Your task to perform on an android device: turn on location history Image 0: 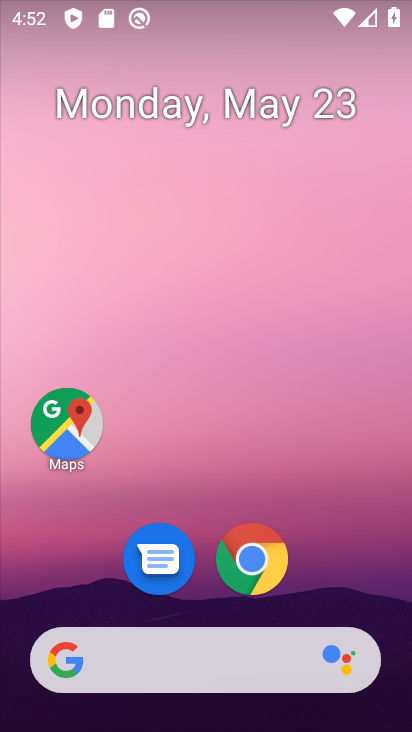
Step 0: drag from (250, 430) to (292, 66)
Your task to perform on an android device: turn on location history Image 1: 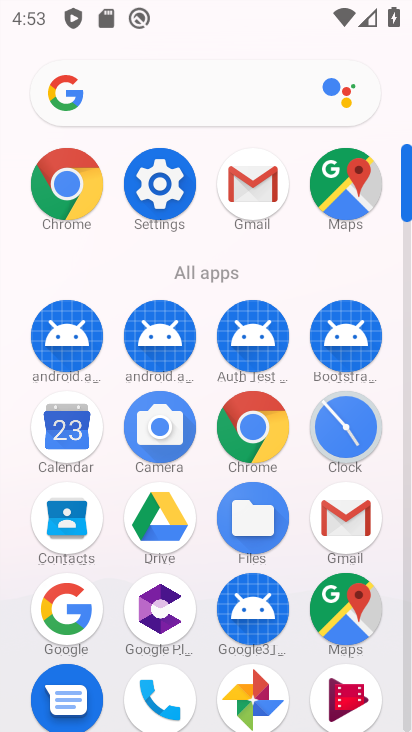
Step 1: drag from (290, 622) to (307, 264)
Your task to perform on an android device: turn on location history Image 2: 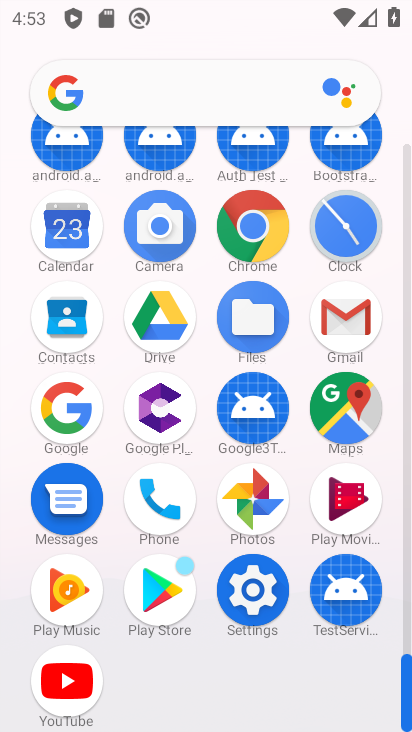
Step 2: click (268, 582)
Your task to perform on an android device: turn on location history Image 3: 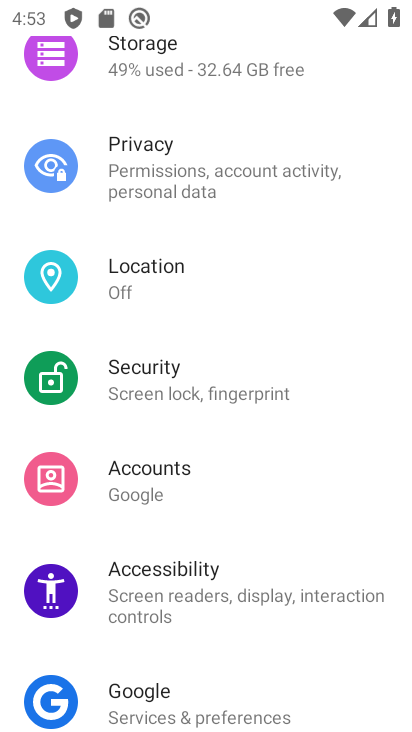
Step 3: click (221, 270)
Your task to perform on an android device: turn on location history Image 4: 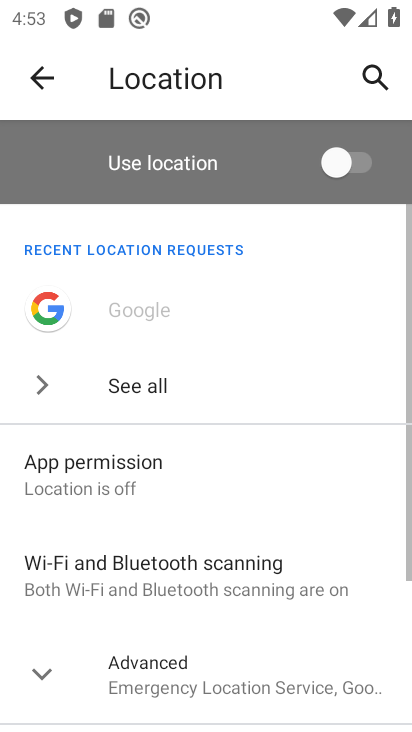
Step 4: drag from (283, 625) to (303, 156)
Your task to perform on an android device: turn on location history Image 5: 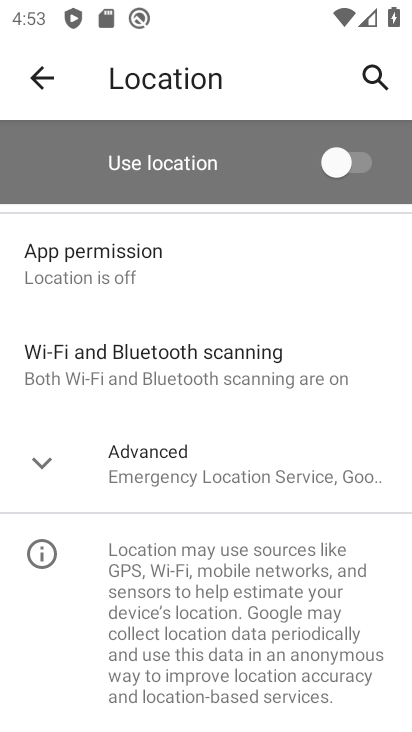
Step 5: click (260, 472)
Your task to perform on an android device: turn on location history Image 6: 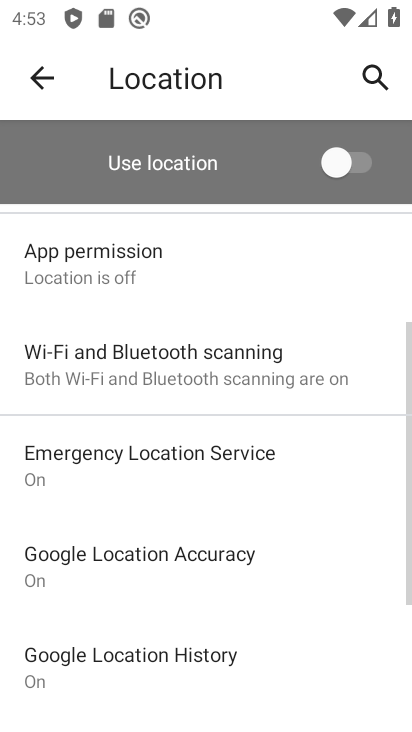
Step 6: drag from (219, 672) to (225, 274)
Your task to perform on an android device: turn on location history Image 7: 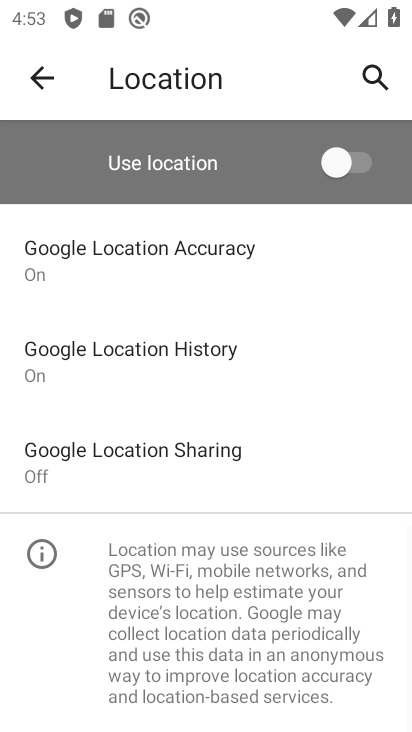
Step 7: click (196, 348)
Your task to perform on an android device: turn on location history Image 8: 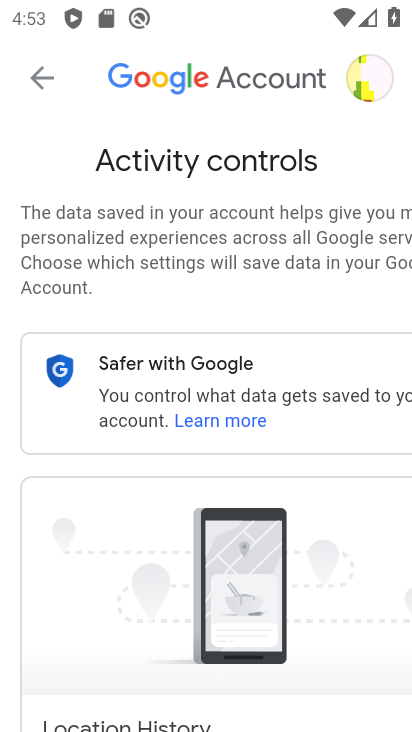
Step 8: drag from (352, 655) to (322, 138)
Your task to perform on an android device: turn on location history Image 9: 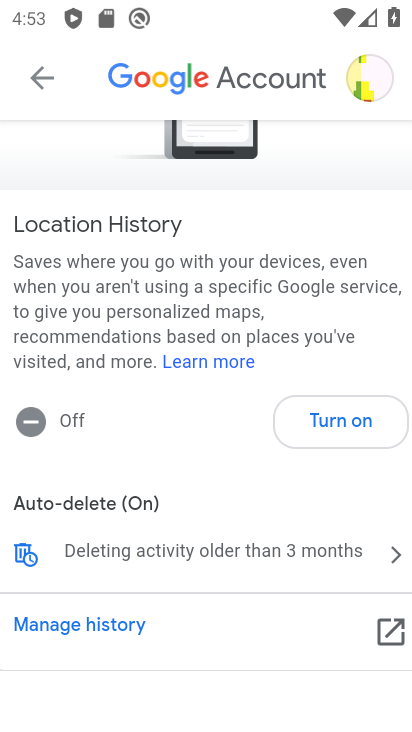
Step 9: click (347, 418)
Your task to perform on an android device: turn on location history Image 10: 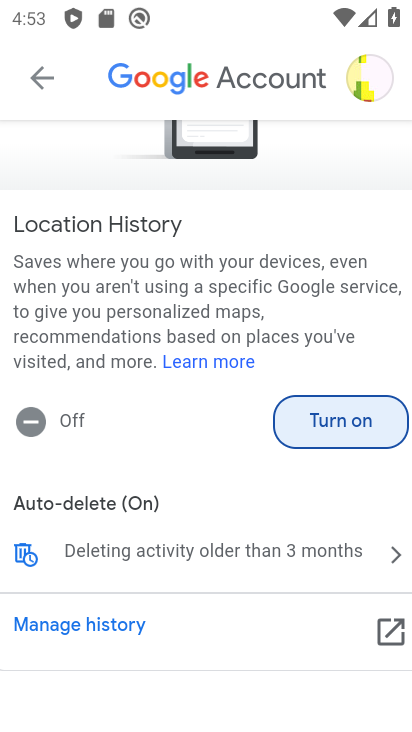
Step 10: click (346, 426)
Your task to perform on an android device: turn on location history Image 11: 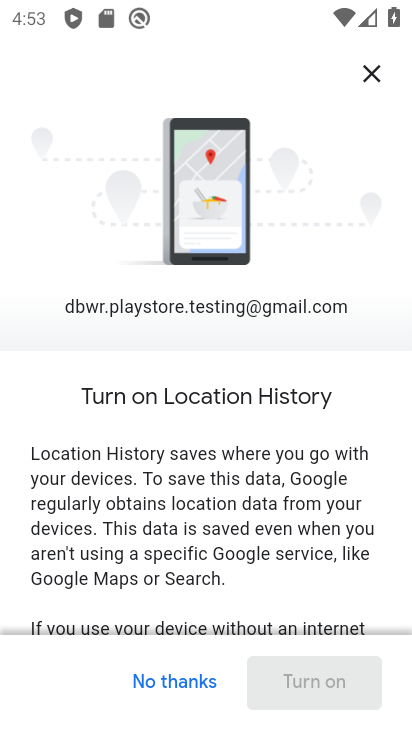
Step 11: drag from (328, 587) to (347, 9)
Your task to perform on an android device: turn on location history Image 12: 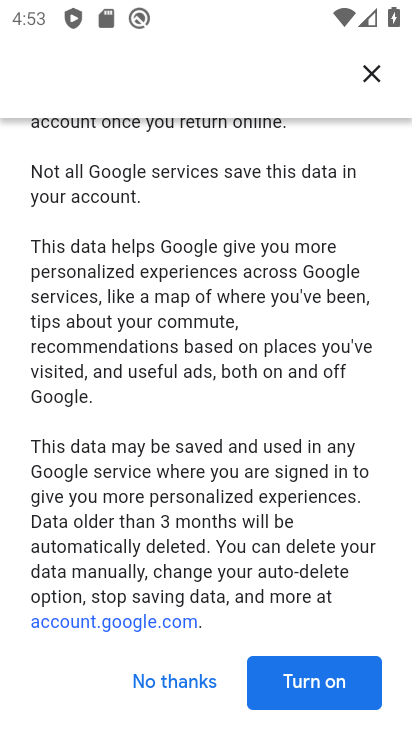
Step 12: drag from (301, 527) to (320, 232)
Your task to perform on an android device: turn on location history Image 13: 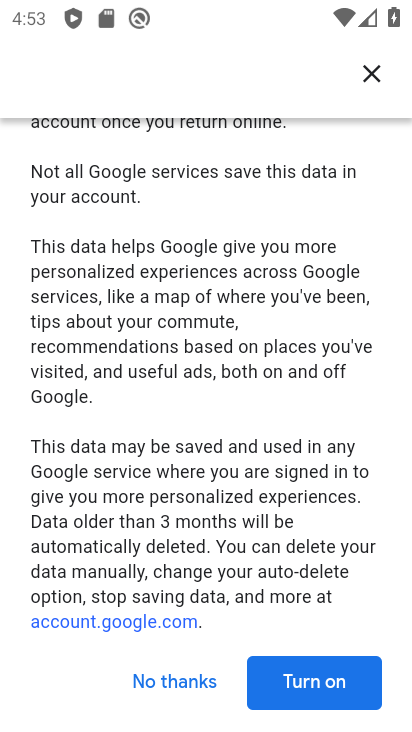
Step 13: click (282, 678)
Your task to perform on an android device: turn on location history Image 14: 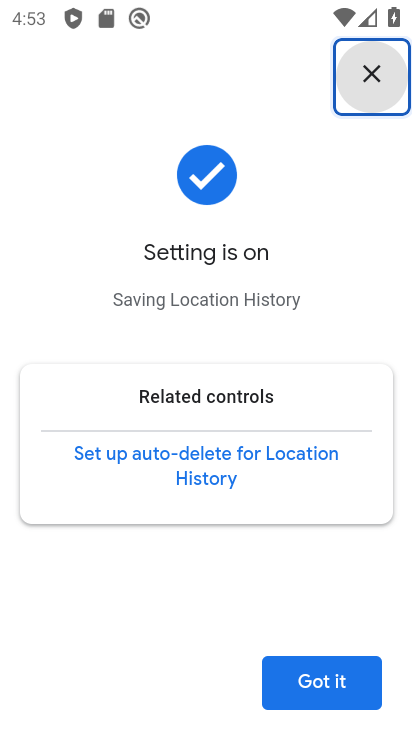
Step 14: task complete